Your task to perform on an android device: read, delete, or share a saved page in the chrome app Image 0: 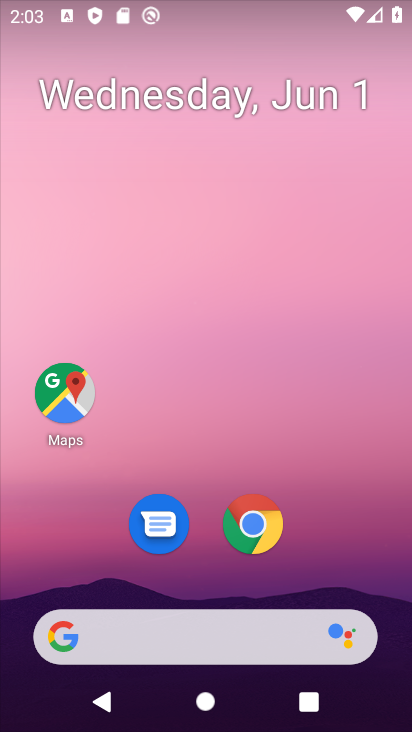
Step 0: drag from (346, 524) to (339, 348)
Your task to perform on an android device: read, delete, or share a saved page in the chrome app Image 1: 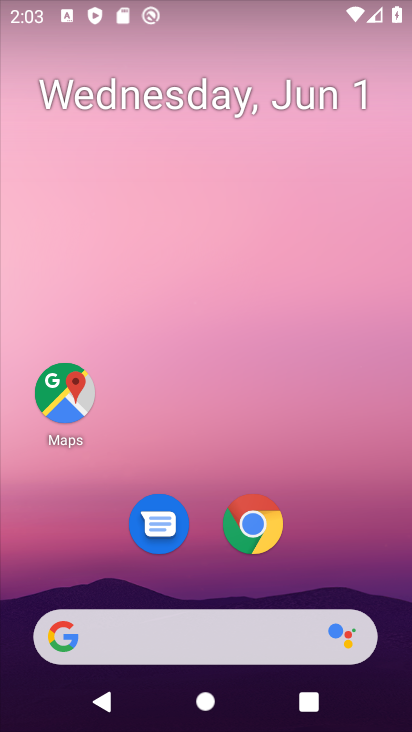
Step 1: click (260, 526)
Your task to perform on an android device: read, delete, or share a saved page in the chrome app Image 2: 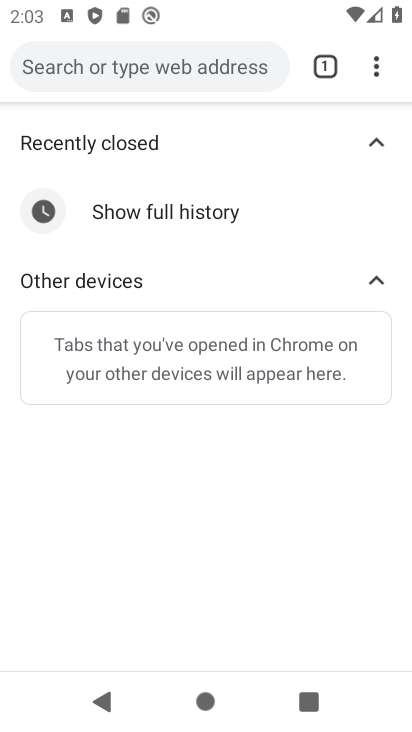
Step 2: click (375, 71)
Your task to perform on an android device: read, delete, or share a saved page in the chrome app Image 3: 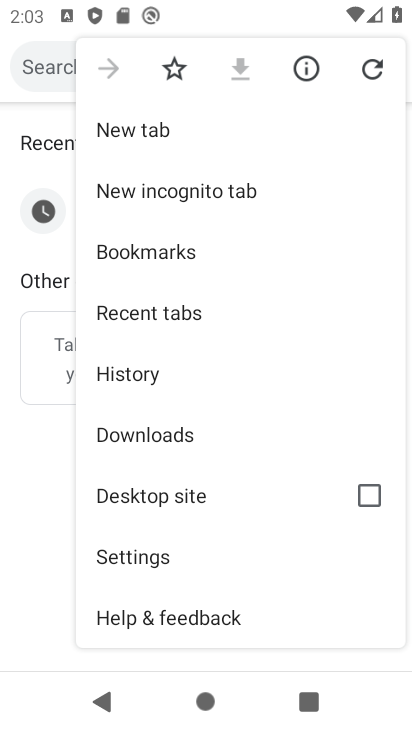
Step 3: click (187, 429)
Your task to perform on an android device: read, delete, or share a saved page in the chrome app Image 4: 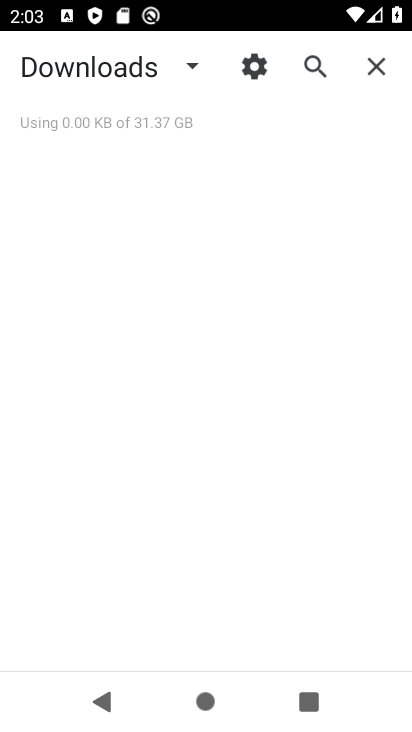
Step 4: task complete